Your task to perform on an android device: Go to sound settings Image 0: 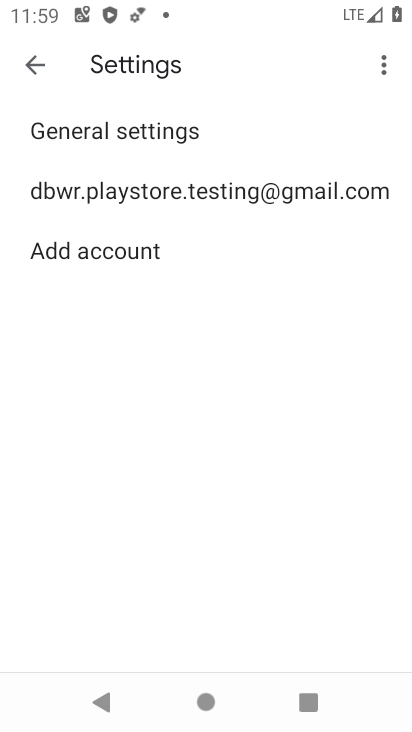
Step 0: press home button
Your task to perform on an android device: Go to sound settings Image 1: 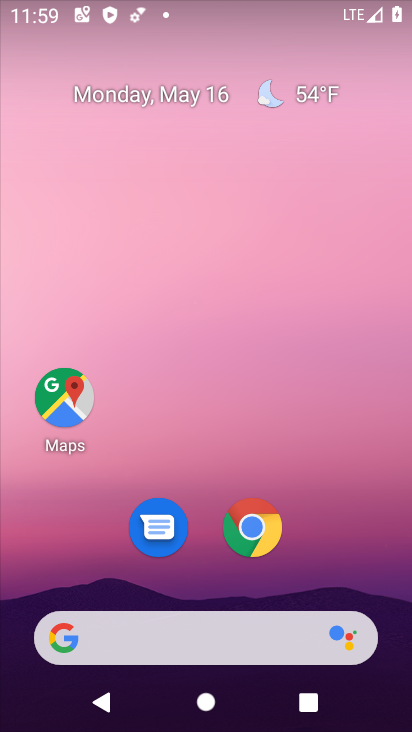
Step 1: drag from (208, 677) to (239, 244)
Your task to perform on an android device: Go to sound settings Image 2: 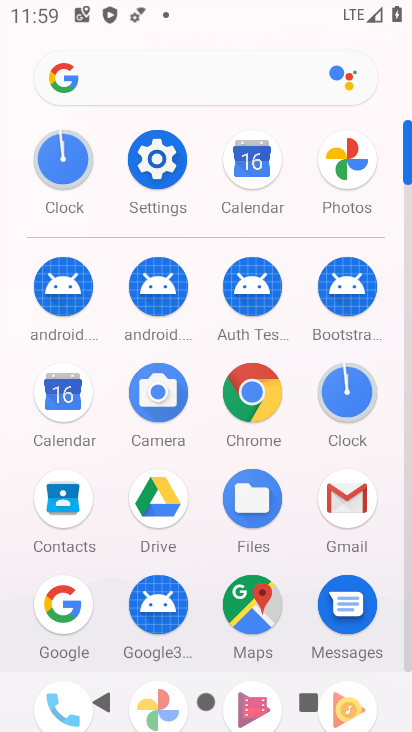
Step 2: click (157, 177)
Your task to perform on an android device: Go to sound settings Image 3: 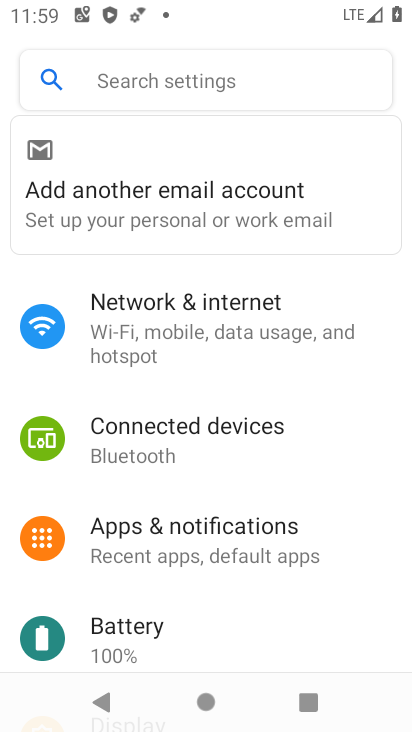
Step 3: click (161, 87)
Your task to perform on an android device: Go to sound settings Image 4: 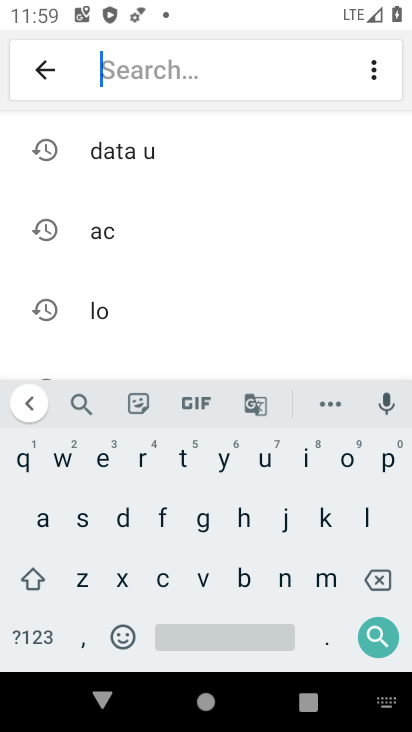
Step 4: click (96, 527)
Your task to perform on an android device: Go to sound settings Image 5: 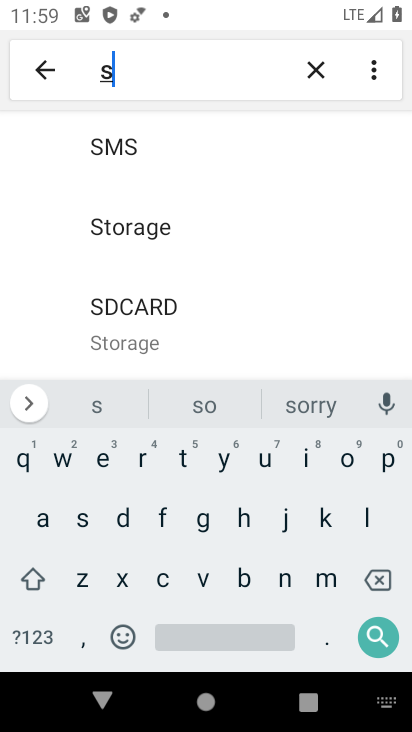
Step 5: click (352, 454)
Your task to perform on an android device: Go to sound settings Image 6: 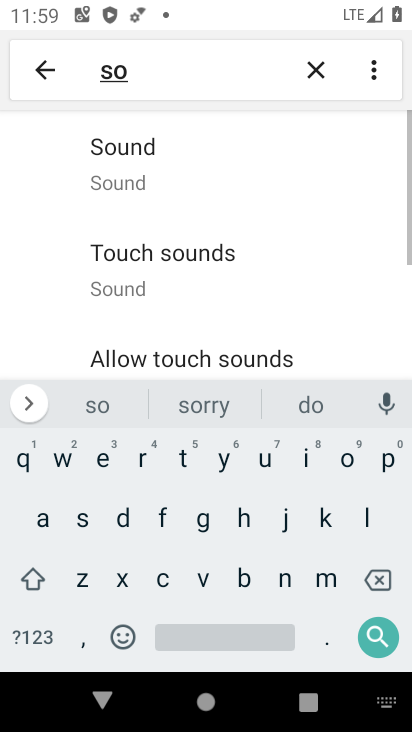
Step 6: click (140, 156)
Your task to perform on an android device: Go to sound settings Image 7: 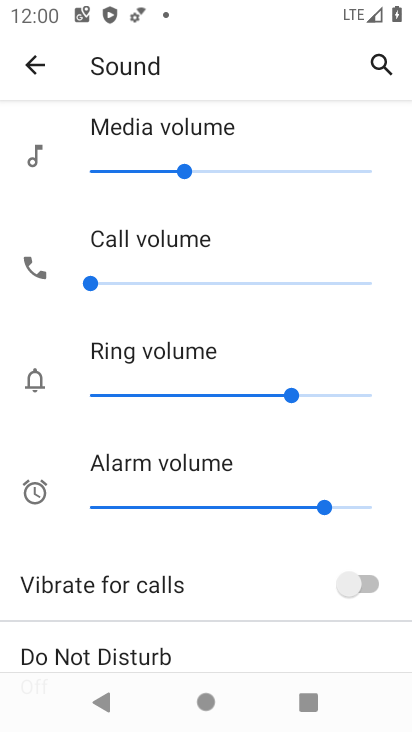
Step 7: task complete